Your task to perform on an android device: turn on priority inbox in the gmail app Image 0: 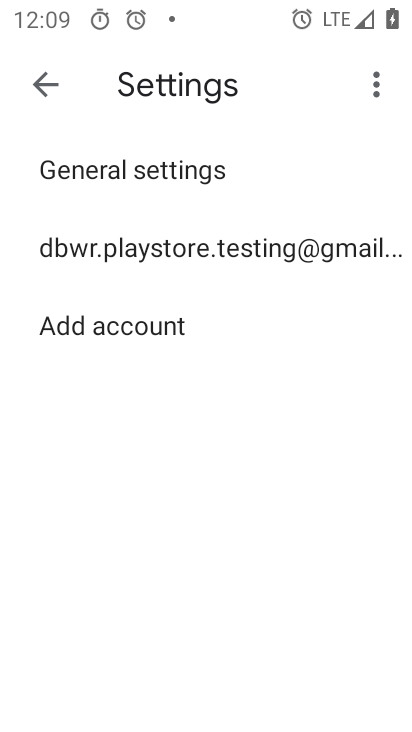
Step 0: click (242, 263)
Your task to perform on an android device: turn on priority inbox in the gmail app Image 1: 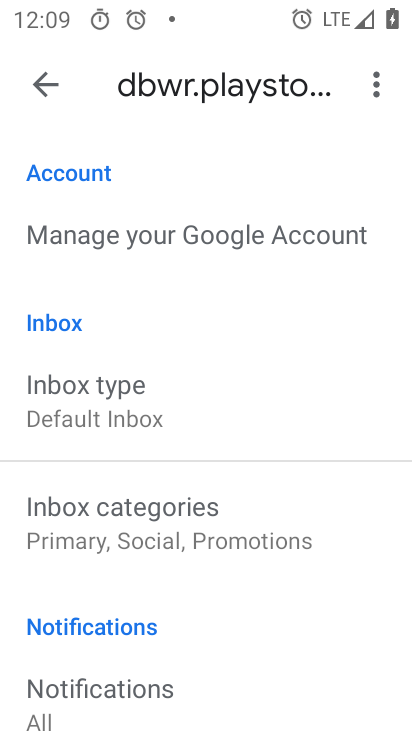
Step 1: click (129, 405)
Your task to perform on an android device: turn on priority inbox in the gmail app Image 2: 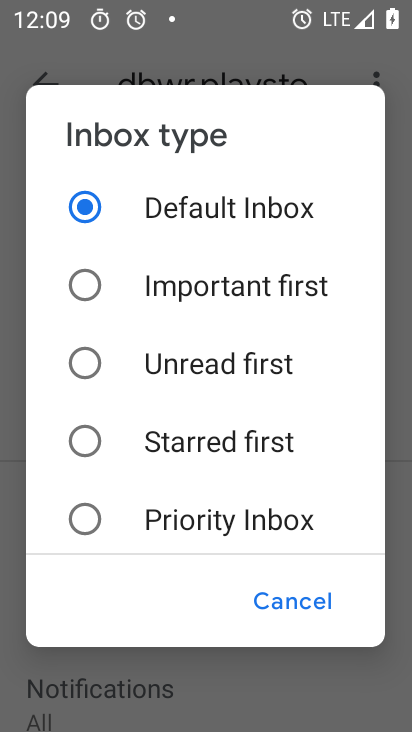
Step 2: click (158, 510)
Your task to perform on an android device: turn on priority inbox in the gmail app Image 3: 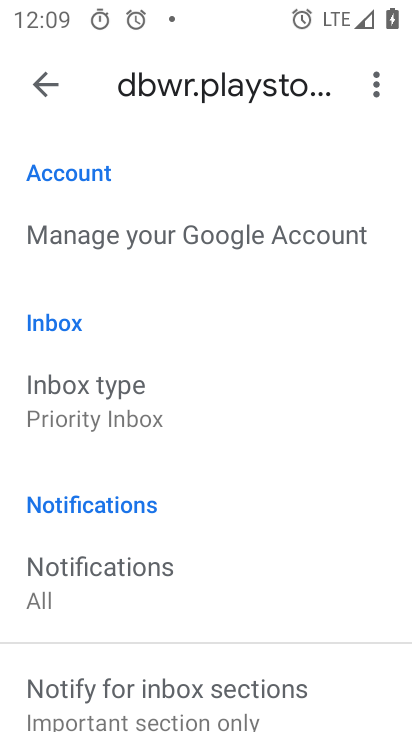
Step 3: task complete